Your task to perform on an android device: Go to Reddit.com Image 0: 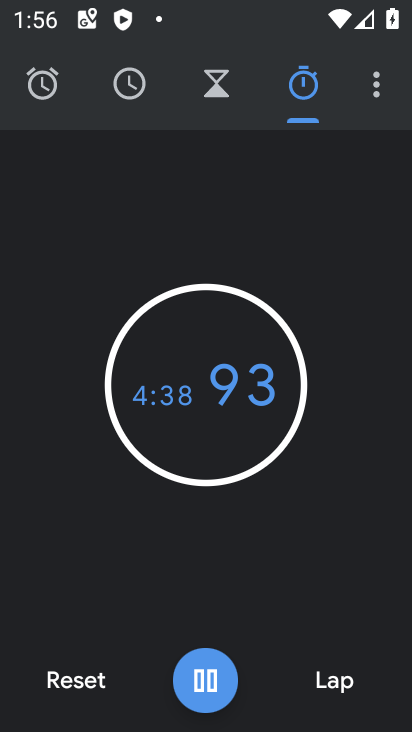
Step 0: press home button
Your task to perform on an android device: Go to Reddit.com Image 1: 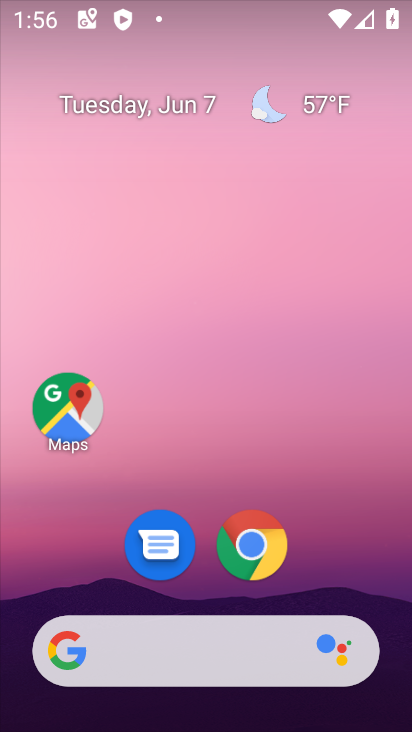
Step 1: click (257, 550)
Your task to perform on an android device: Go to Reddit.com Image 2: 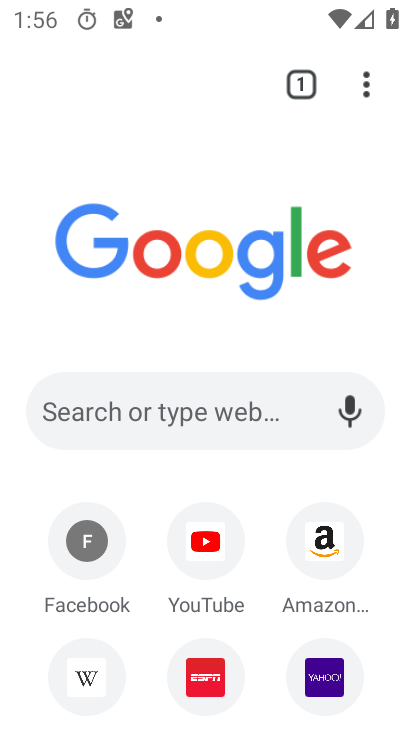
Step 2: click (196, 403)
Your task to perform on an android device: Go to Reddit.com Image 3: 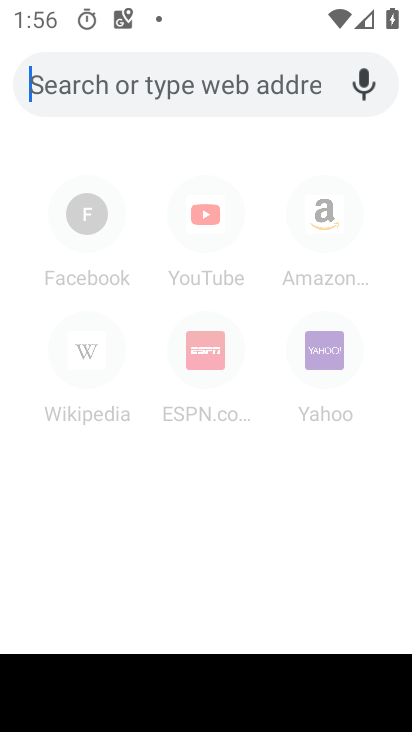
Step 3: type "Reddi.com"
Your task to perform on an android device: Go to Reddit.com Image 4: 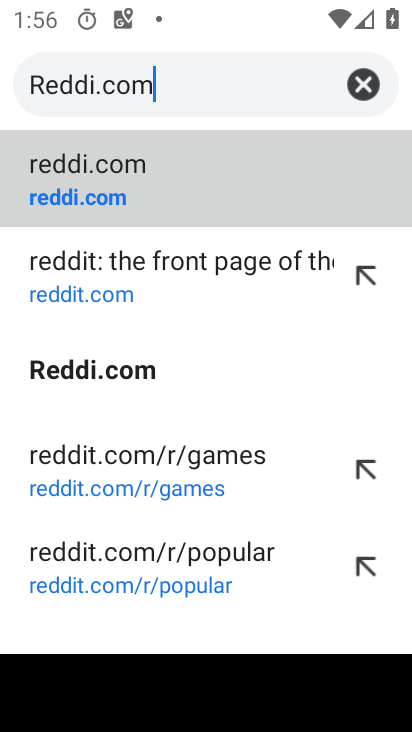
Step 4: click (233, 185)
Your task to perform on an android device: Go to Reddit.com Image 5: 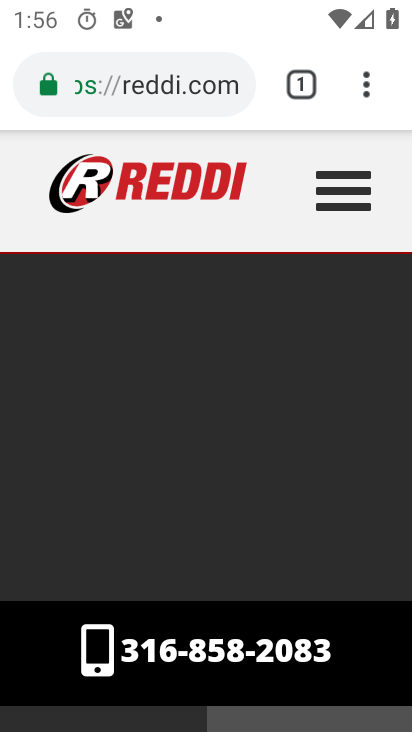
Step 5: task complete